Your task to perform on an android device: Go to Maps Image 0: 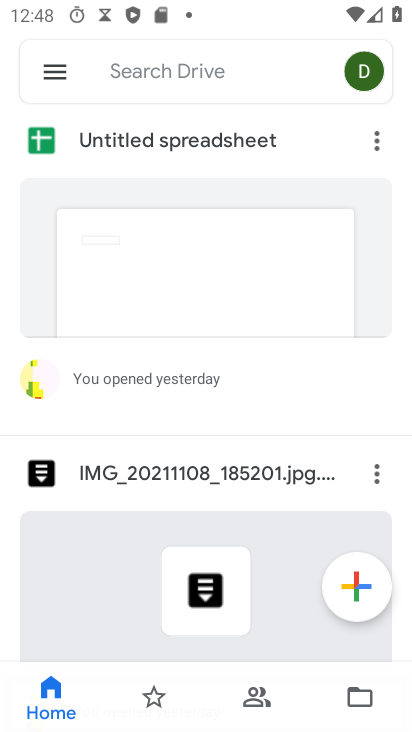
Step 0: press back button
Your task to perform on an android device: Go to Maps Image 1: 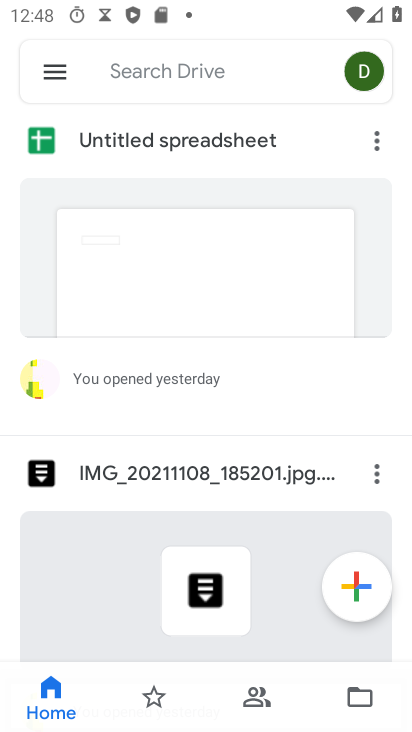
Step 1: press back button
Your task to perform on an android device: Go to Maps Image 2: 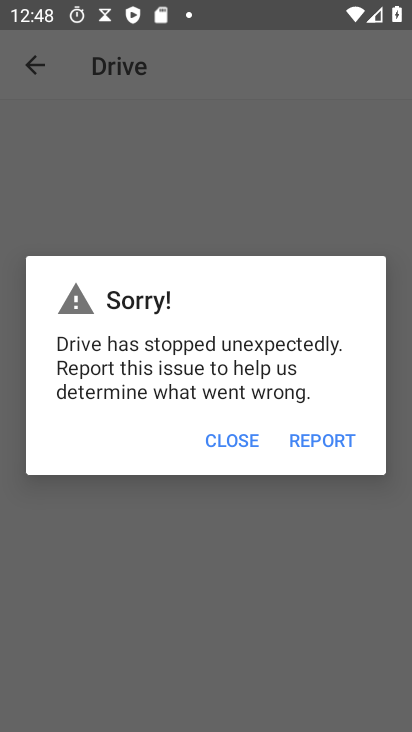
Step 2: click (224, 439)
Your task to perform on an android device: Go to Maps Image 3: 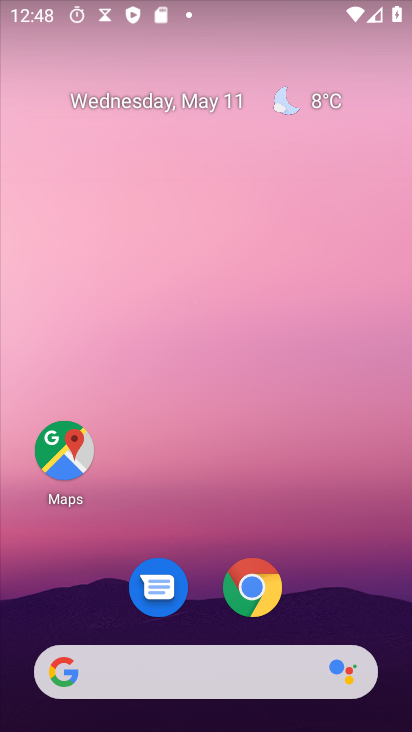
Step 3: drag from (355, 576) to (58, 173)
Your task to perform on an android device: Go to Maps Image 4: 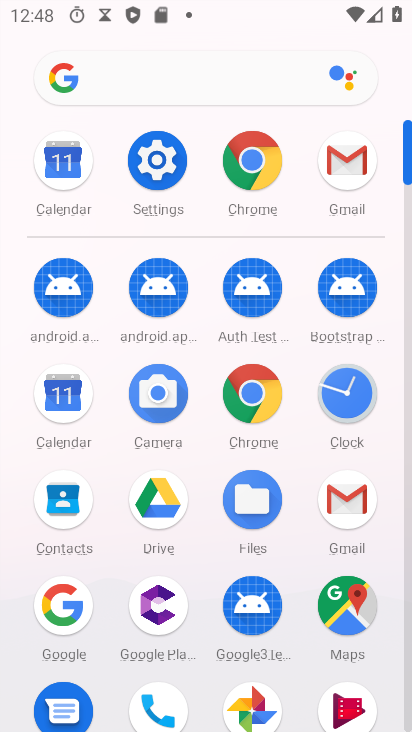
Step 4: click (355, 615)
Your task to perform on an android device: Go to Maps Image 5: 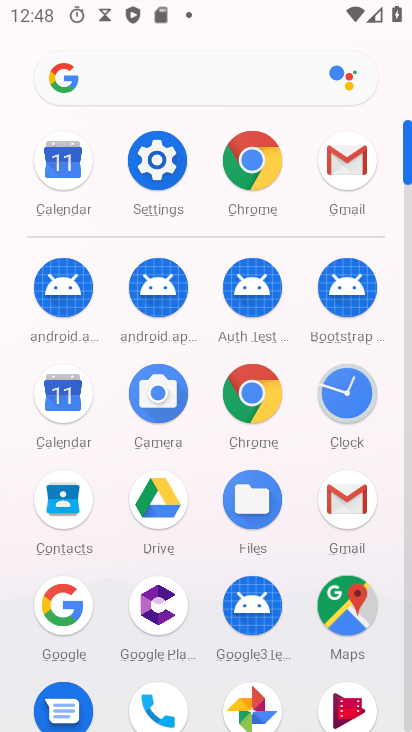
Step 5: click (354, 614)
Your task to perform on an android device: Go to Maps Image 6: 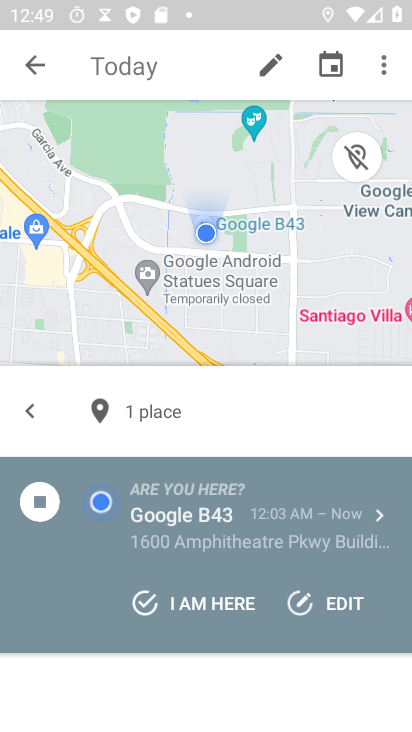
Step 6: task complete